Your task to perform on an android device: open a new tab in the chrome app Image 0: 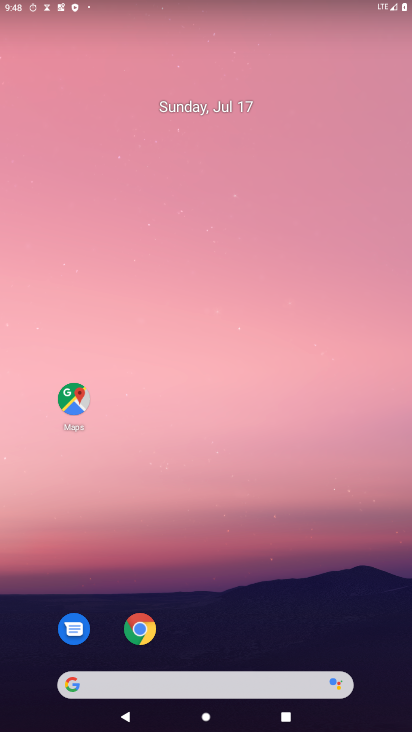
Step 0: click (141, 631)
Your task to perform on an android device: open a new tab in the chrome app Image 1: 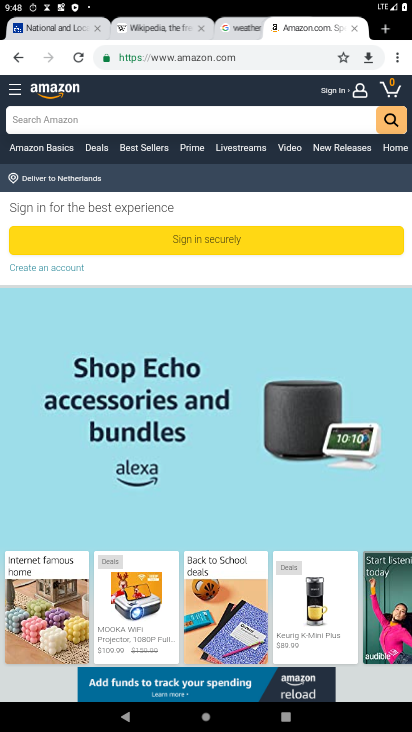
Step 1: click (398, 61)
Your task to perform on an android device: open a new tab in the chrome app Image 2: 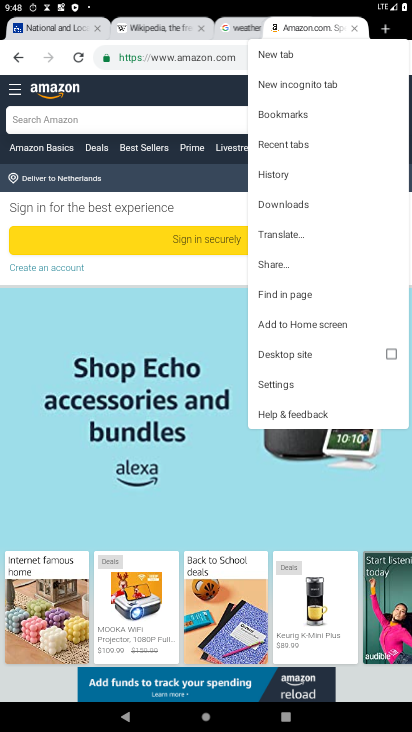
Step 2: click (278, 51)
Your task to perform on an android device: open a new tab in the chrome app Image 3: 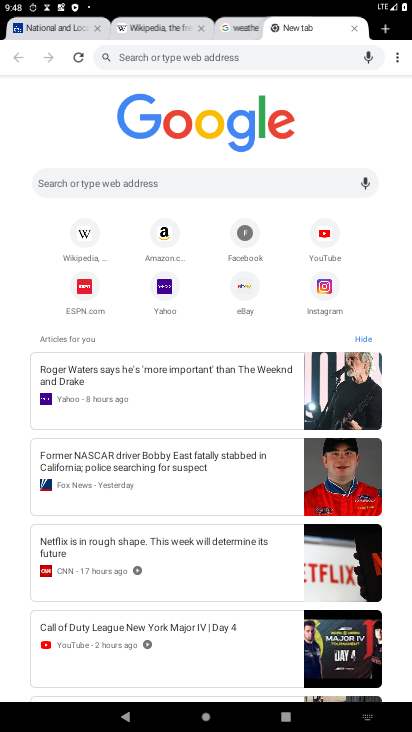
Step 3: task complete